Your task to perform on an android device: open chrome privacy settings Image 0: 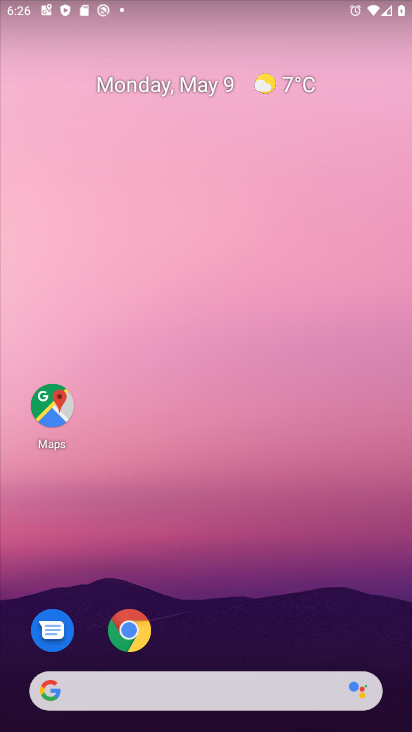
Step 0: drag from (246, 614) to (224, 76)
Your task to perform on an android device: open chrome privacy settings Image 1: 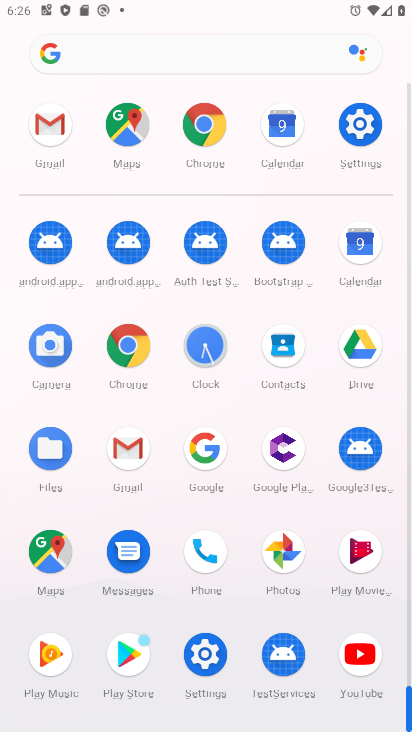
Step 1: click (193, 162)
Your task to perform on an android device: open chrome privacy settings Image 2: 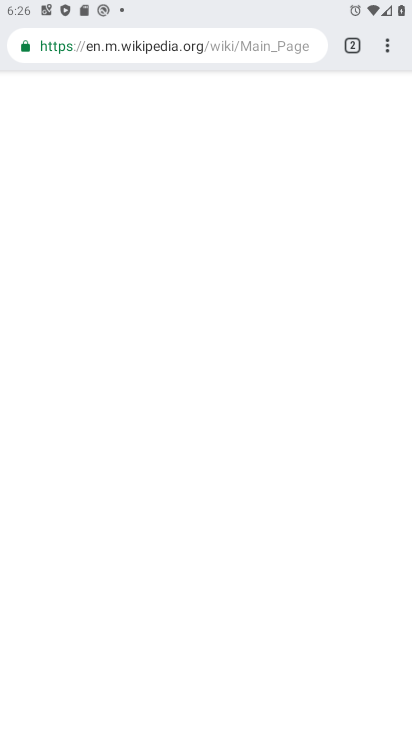
Step 2: click (386, 51)
Your task to perform on an android device: open chrome privacy settings Image 3: 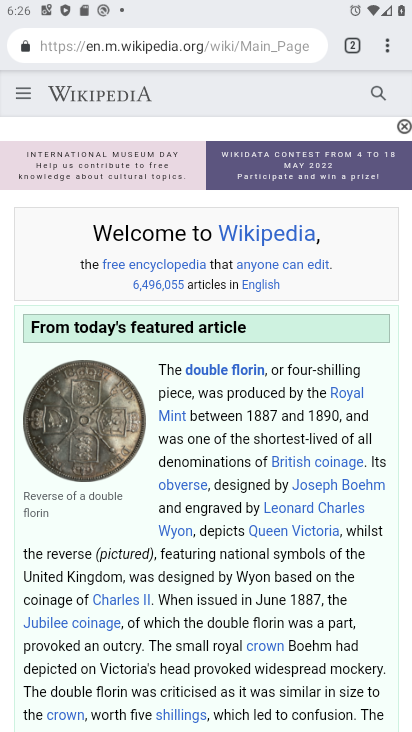
Step 3: click (389, 44)
Your task to perform on an android device: open chrome privacy settings Image 4: 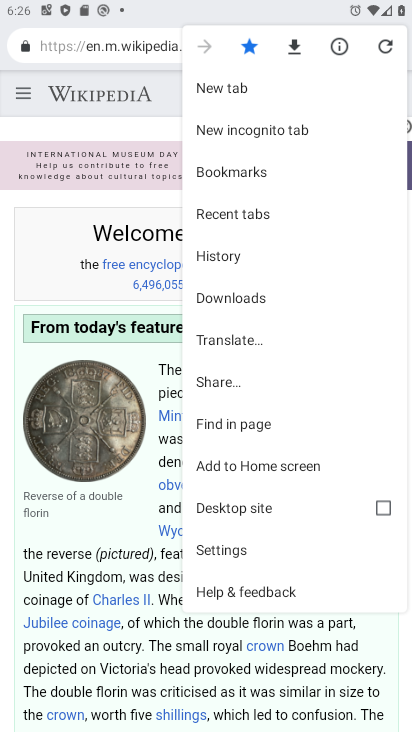
Step 4: click (249, 549)
Your task to perform on an android device: open chrome privacy settings Image 5: 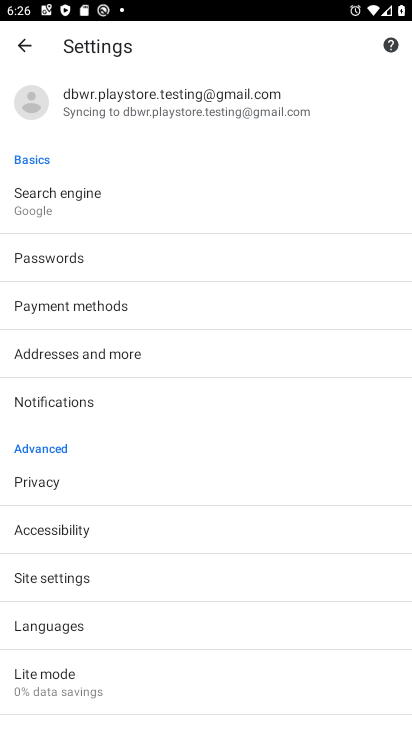
Step 5: drag from (101, 616) to (110, 219)
Your task to perform on an android device: open chrome privacy settings Image 6: 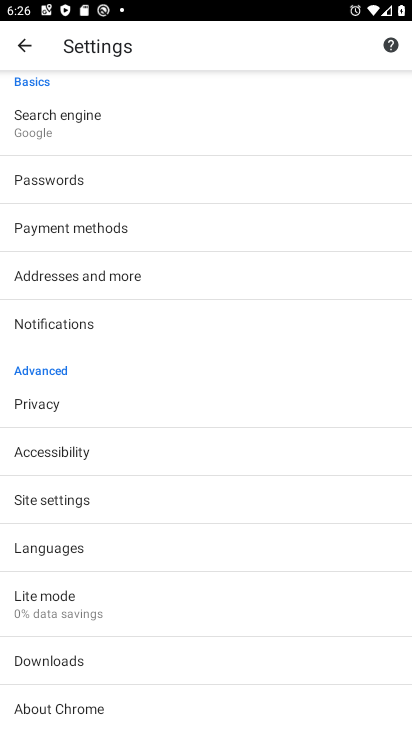
Step 6: click (59, 392)
Your task to perform on an android device: open chrome privacy settings Image 7: 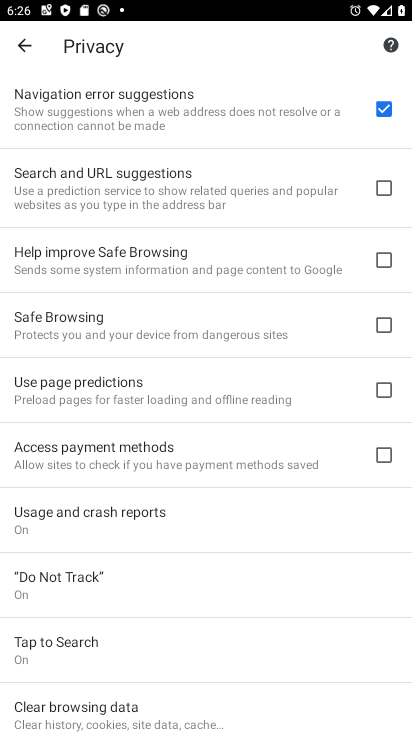
Step 7: task complete